Your task to perform on an android device: Google the capital of Panama Image 0: 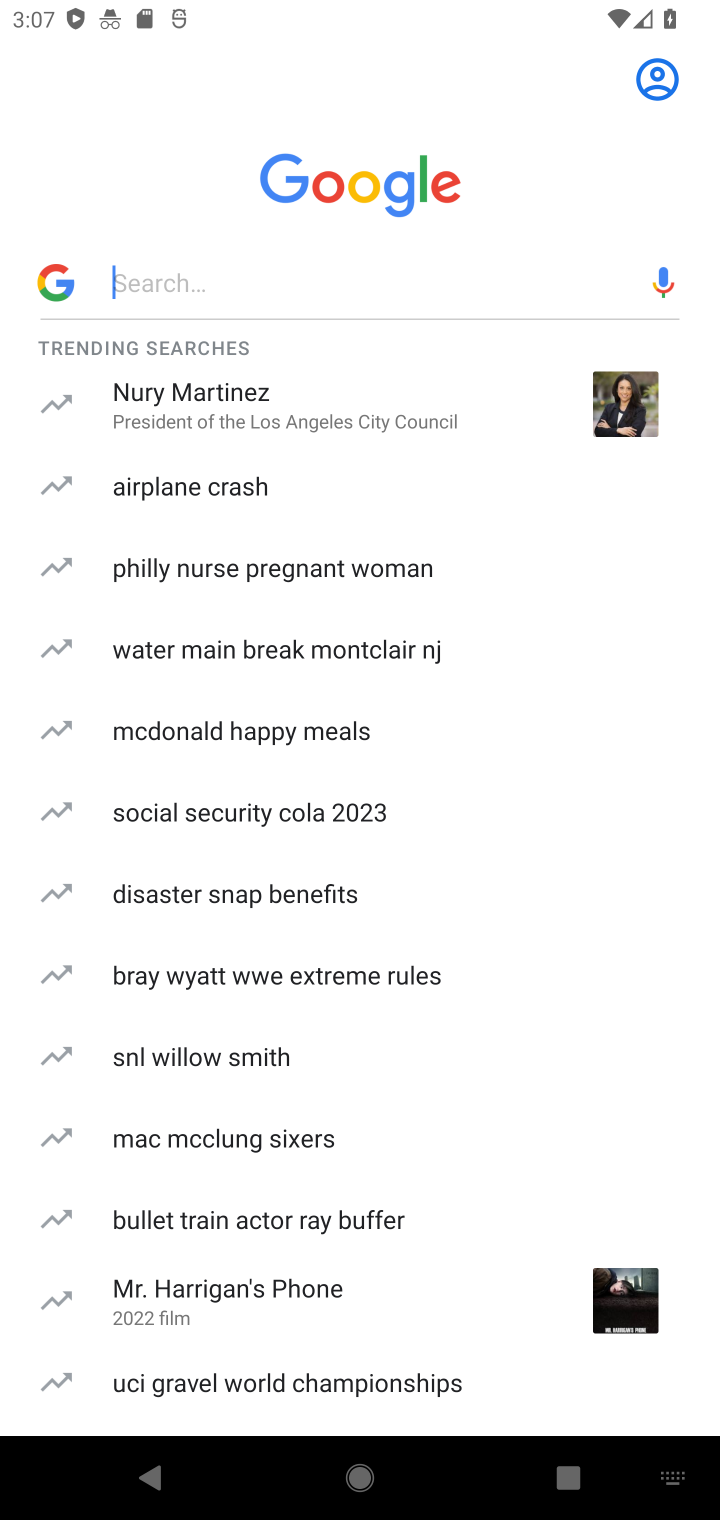
Step 0: type "capital of Panama"
Your task to perform on an android device: Google the capital of Panama Image 1: 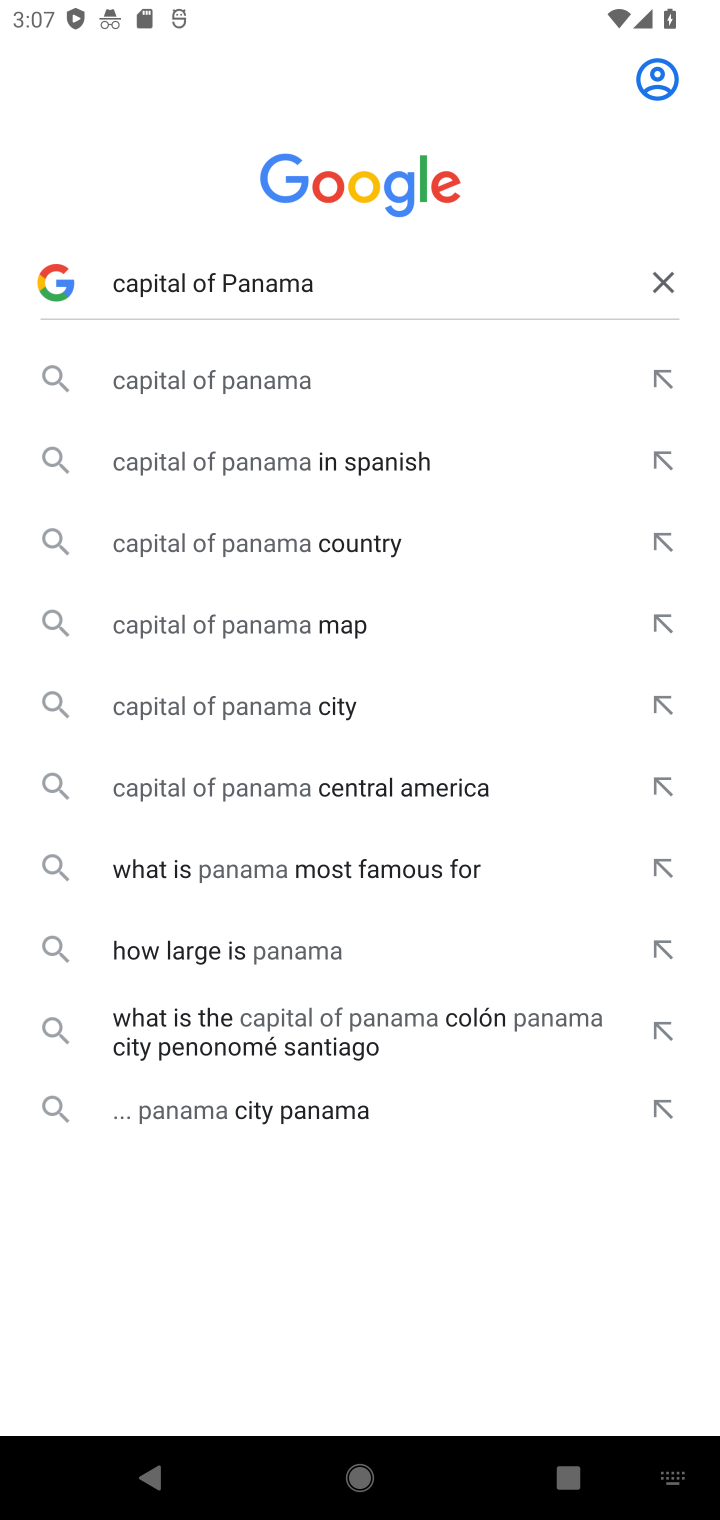
Step 1: press enter
Your task to perform on an android device: Google the capital of Panama Image 2: 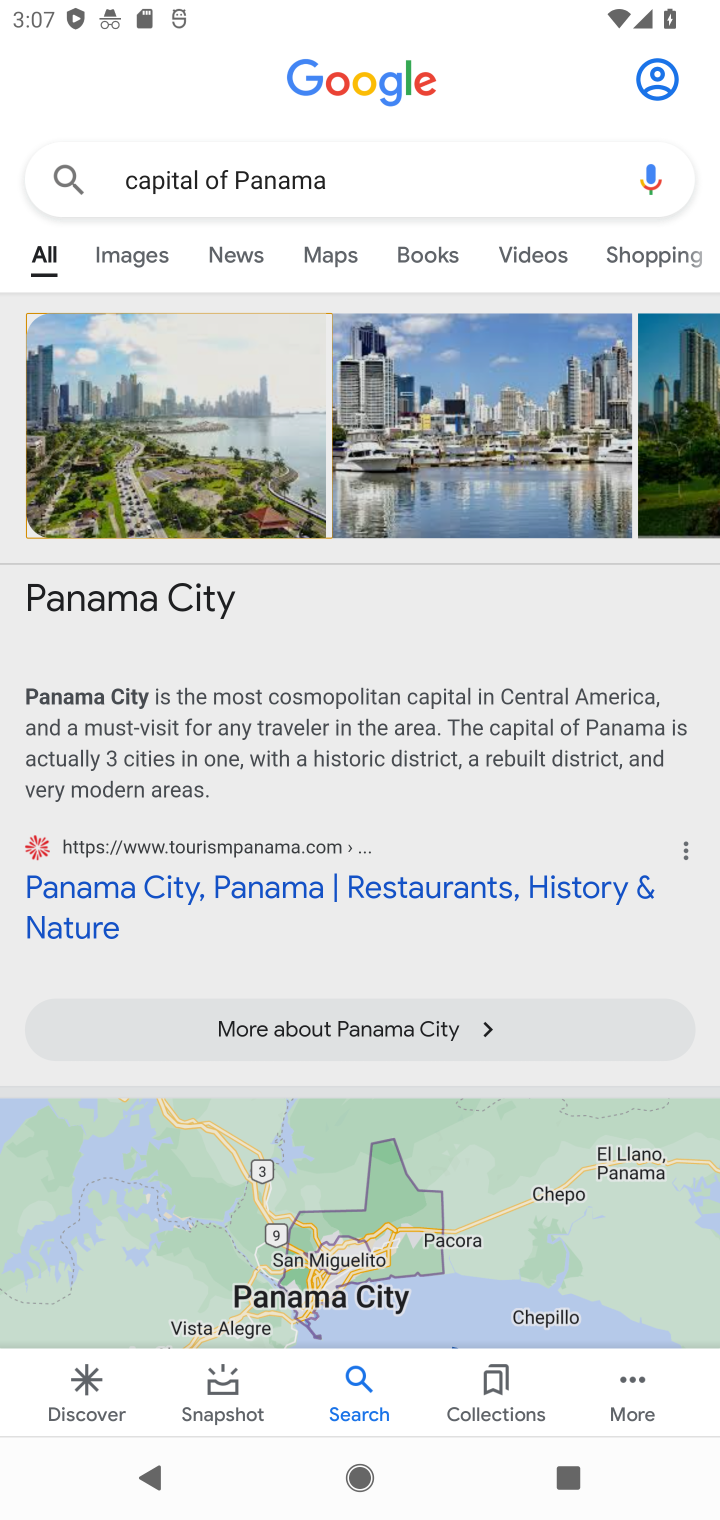
Step 2: task complete